Your task to perform on an android device: Open the calendar and show me this week's events? Image 0: 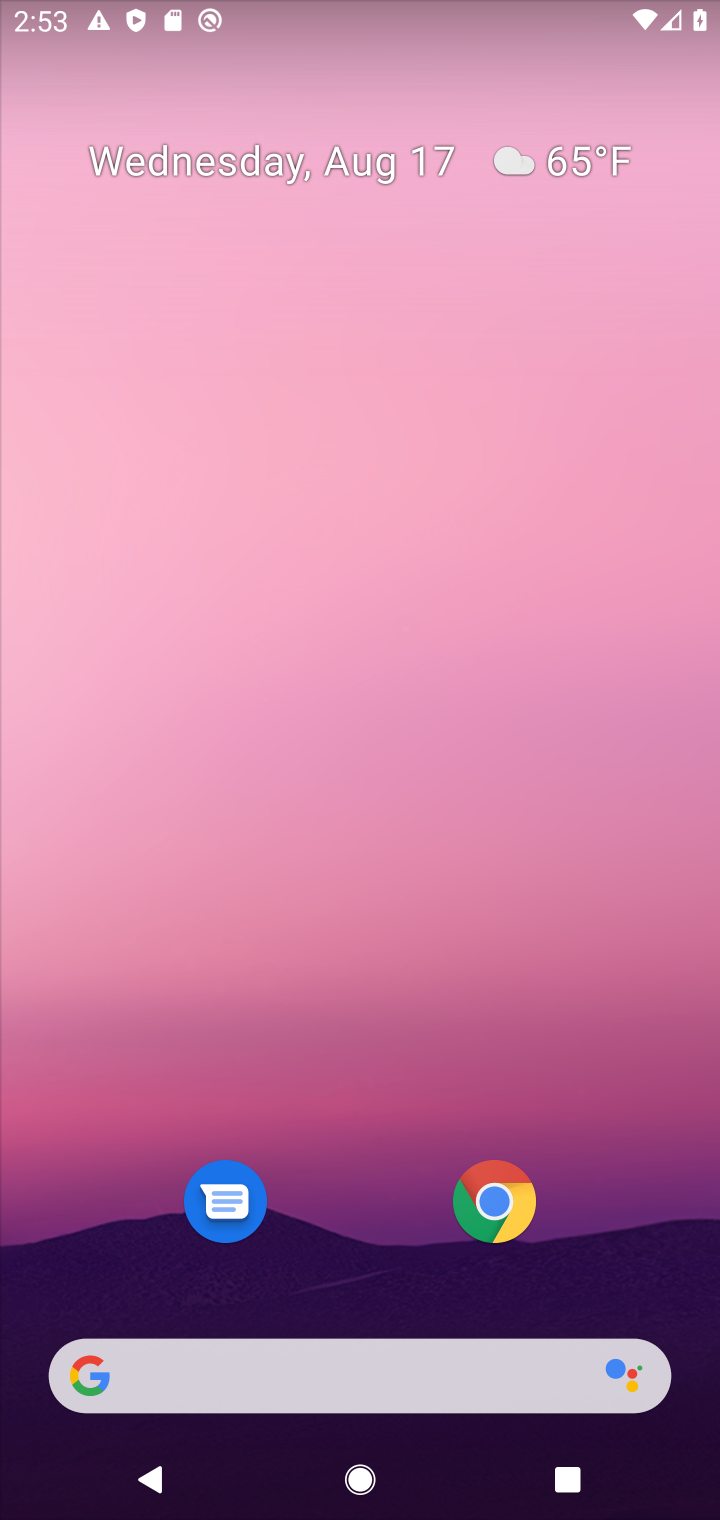
Step 0: drag from (352, 1153) to (517, 36)
Your task to perform on an android device: Open the calendar and show me this week's events? Image 1: 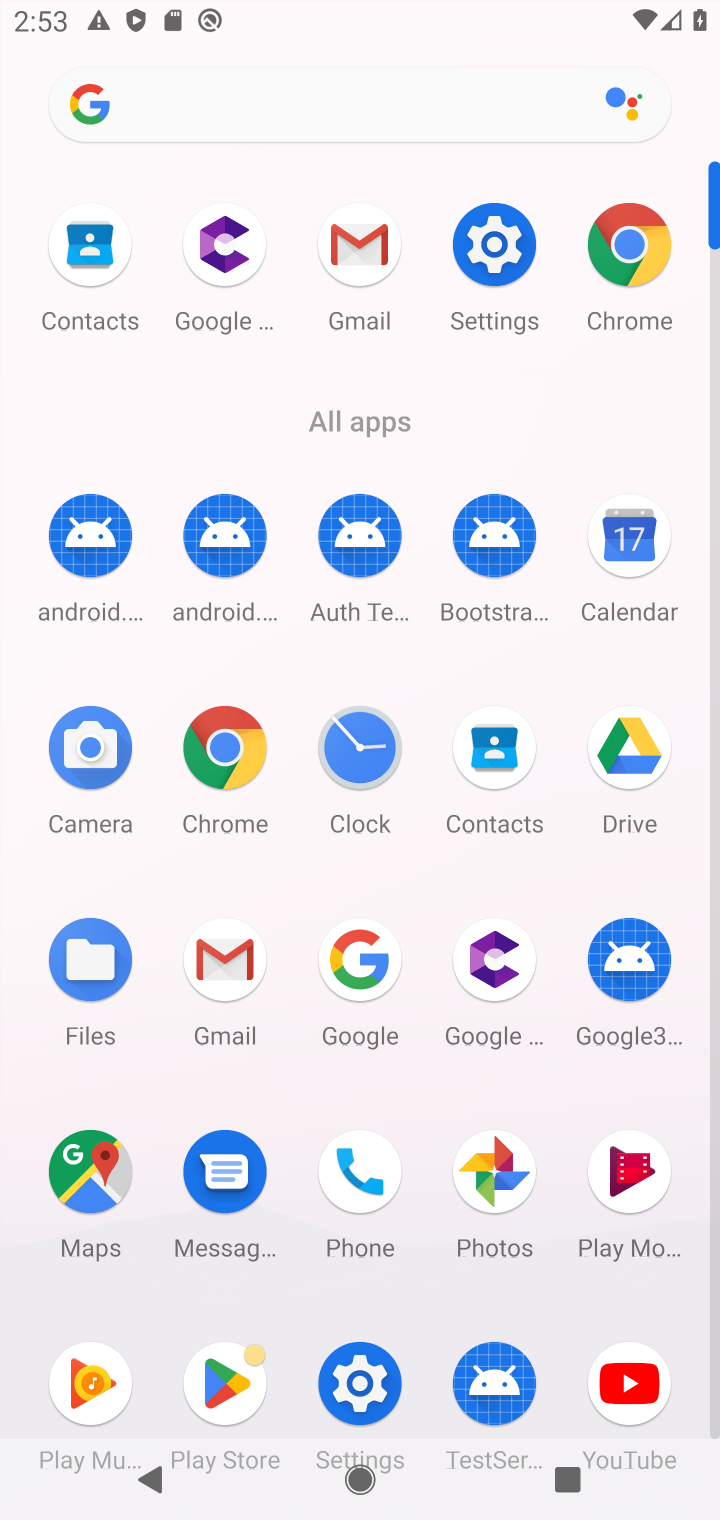
Step 1: click (614, 555)
Your task to perform on an android device: Open the calendar and show me this week's events? Image 2: 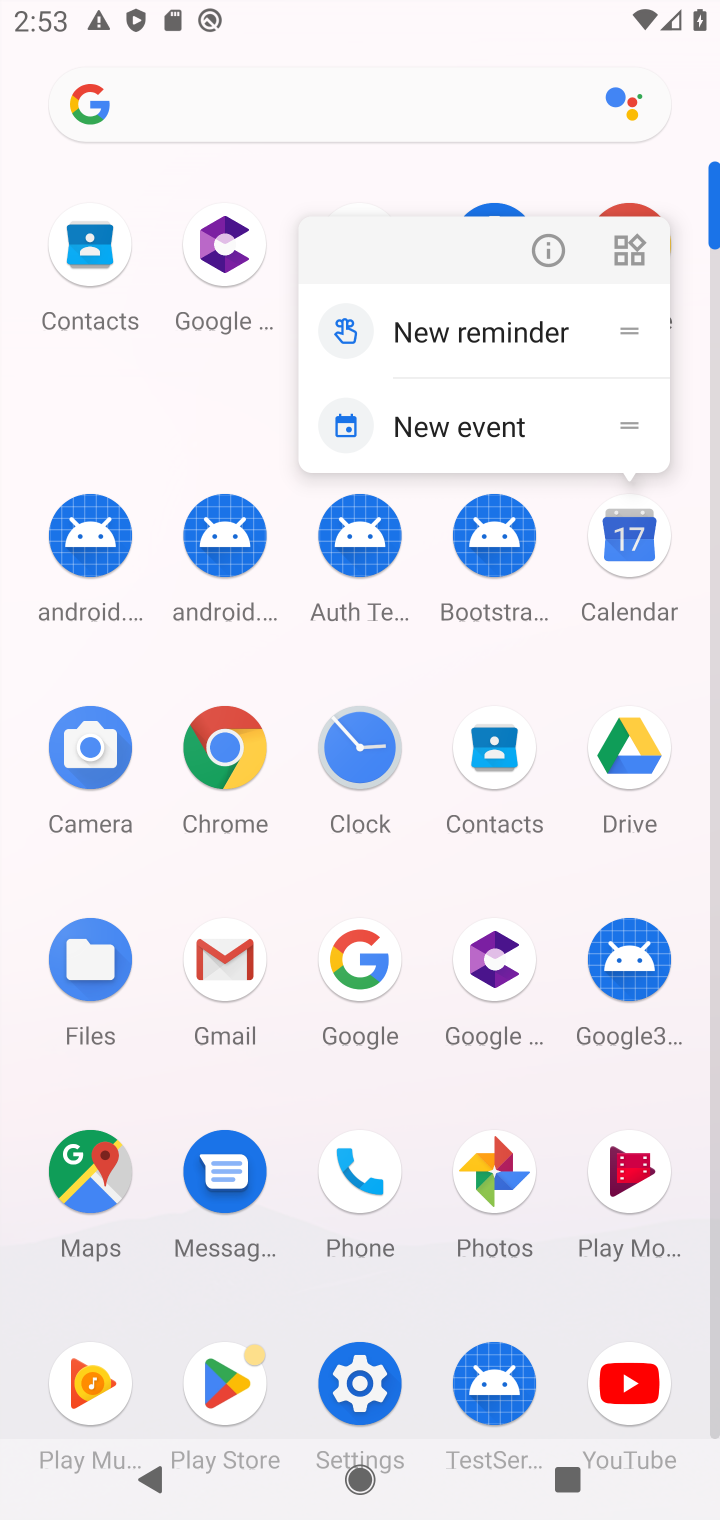
Step 2: click (627, 540)
Your task to perform on an android device: Open the calendar and show me this week's events? Image 3: 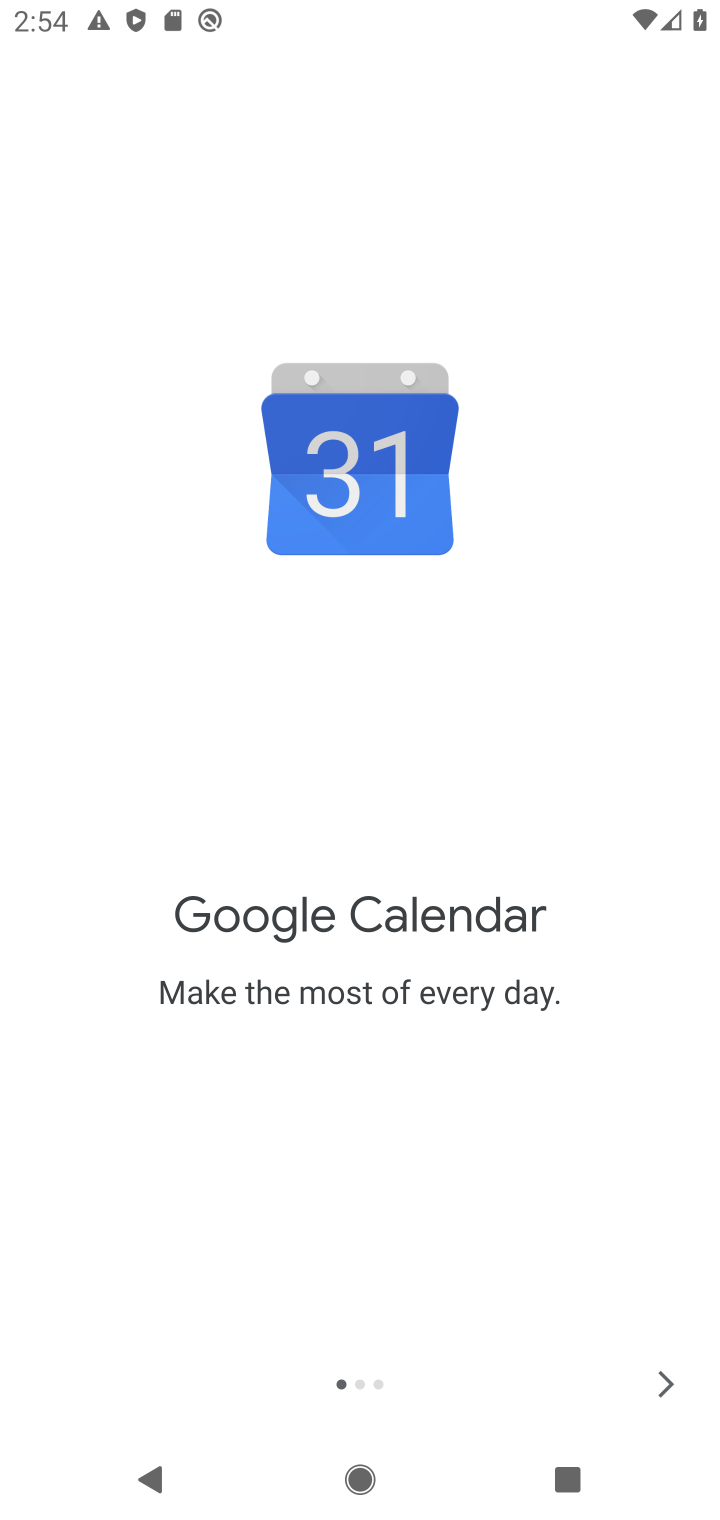
Step 3: click (671, 1396)
Your task to perform on an android device: Open the calendar and show me this week's events? Image 4: 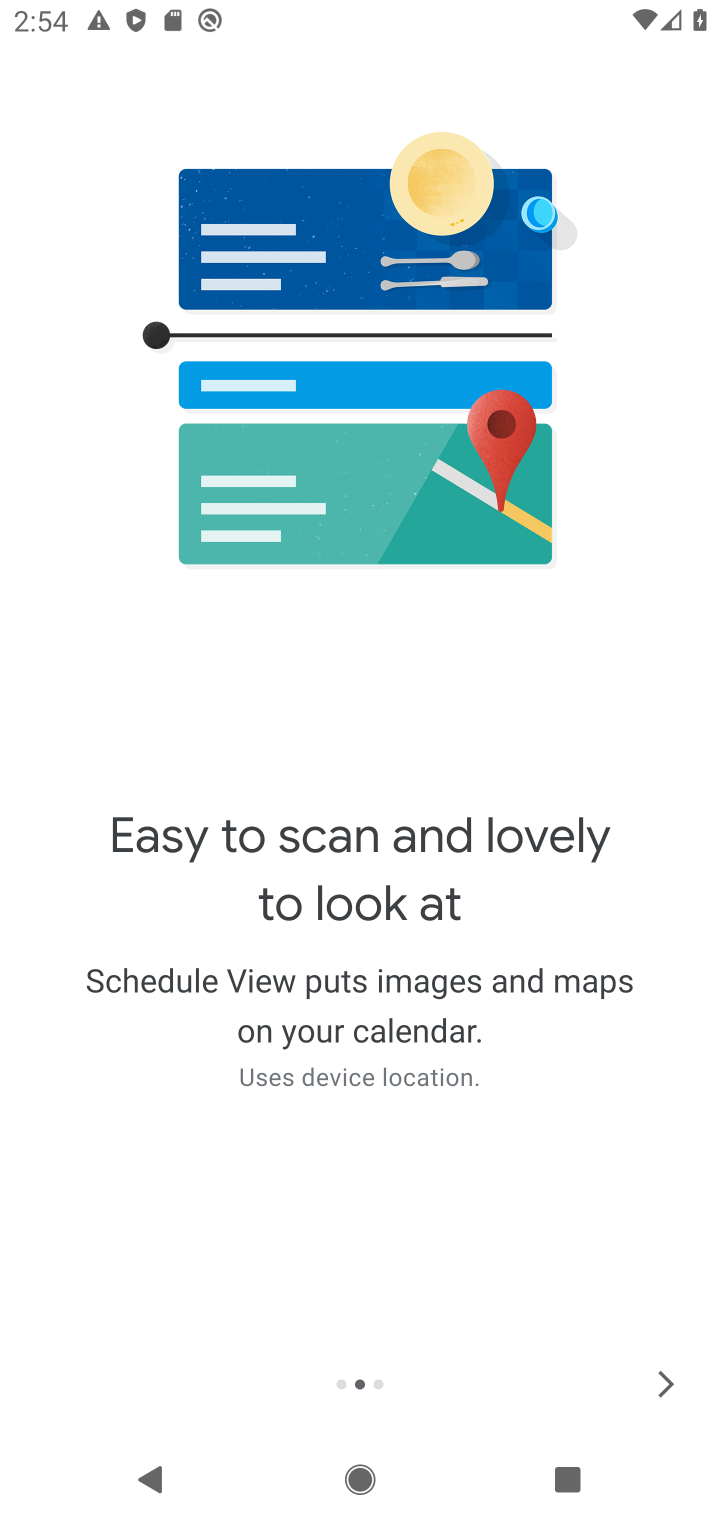
Step 4: click (669, 1386)
Your task to perform on an android device: Open the calendar and show me this week's events? Image 5: 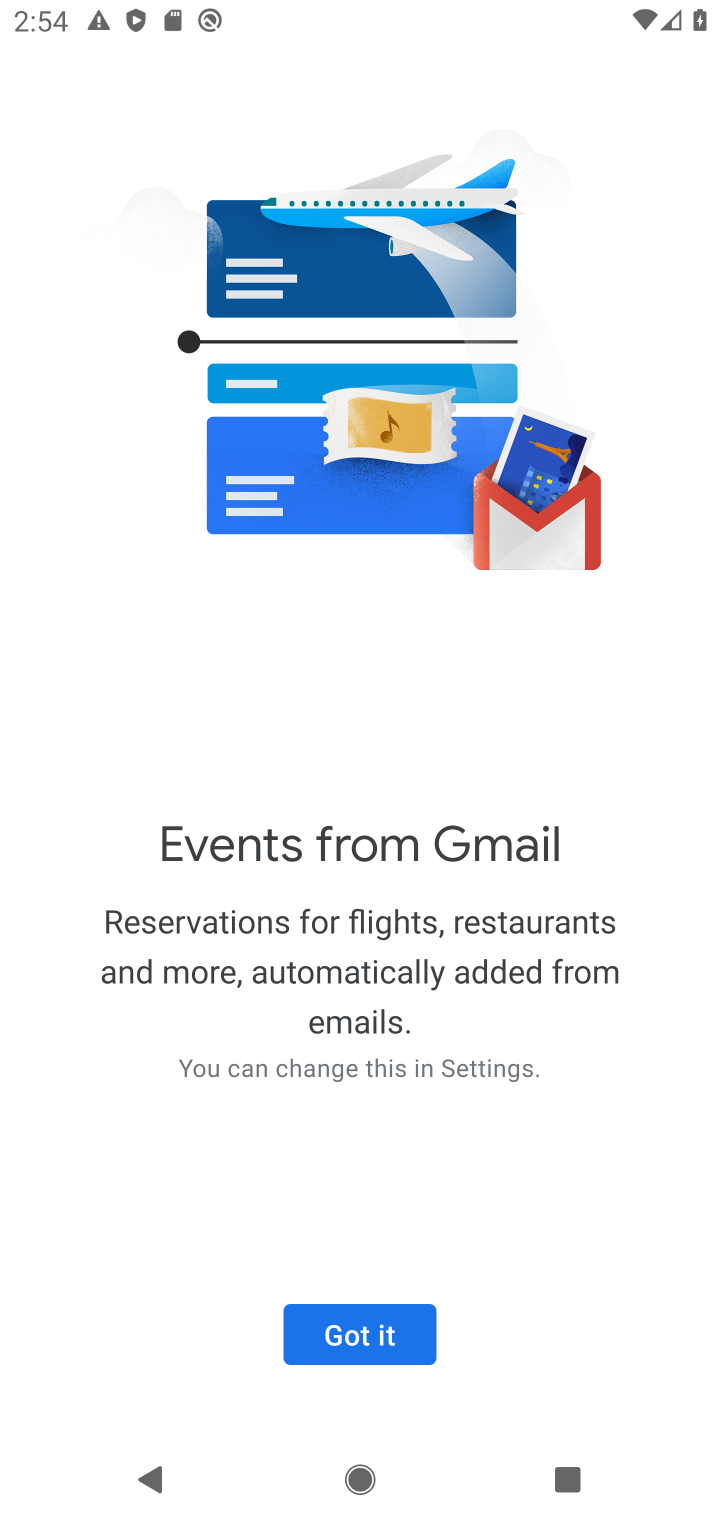
Step 5: click (362, 1319)
Your task to perform on an android device: Open the calendar and show me this week's events? Image 6: 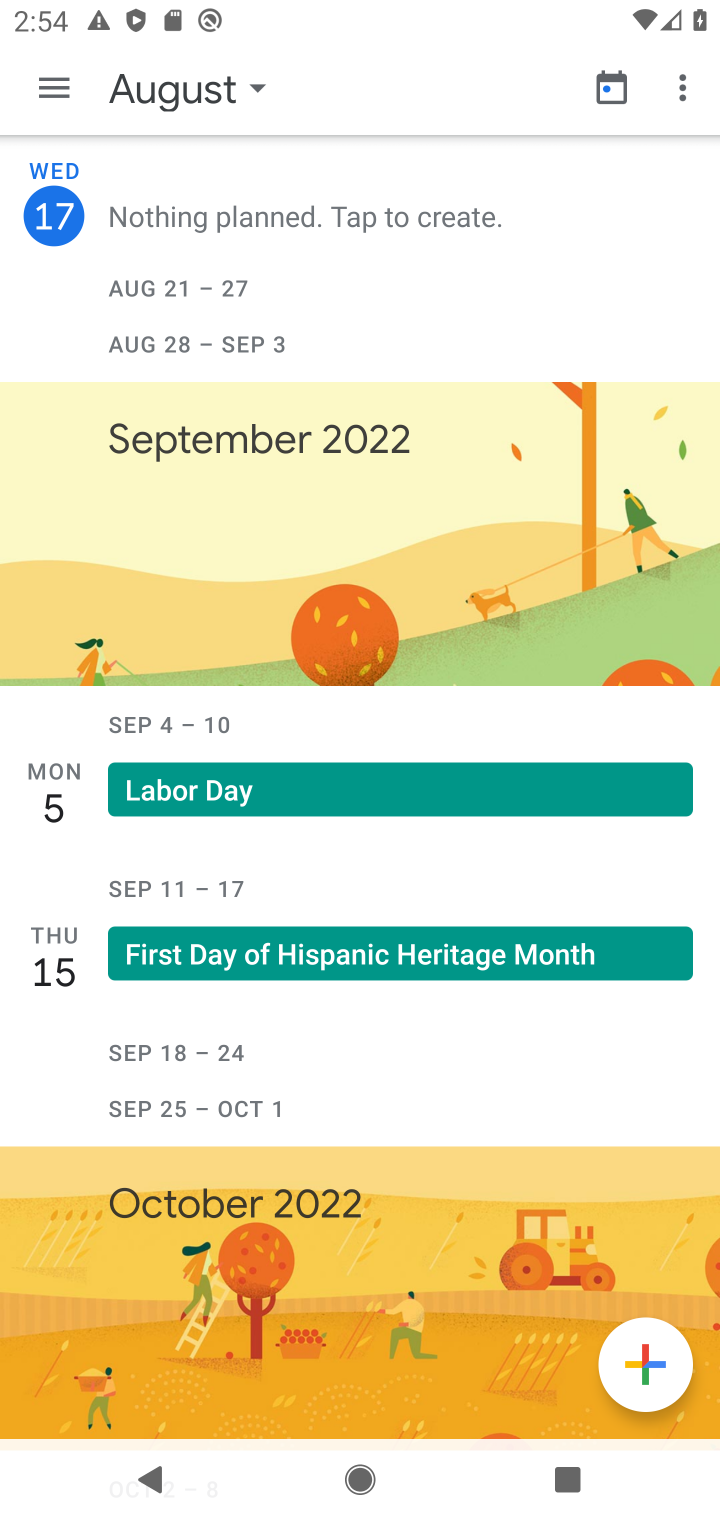
Step 6: click (244, 96)
Your task to perform on an android device: Open the calendar and show me this week's events? Image 7: 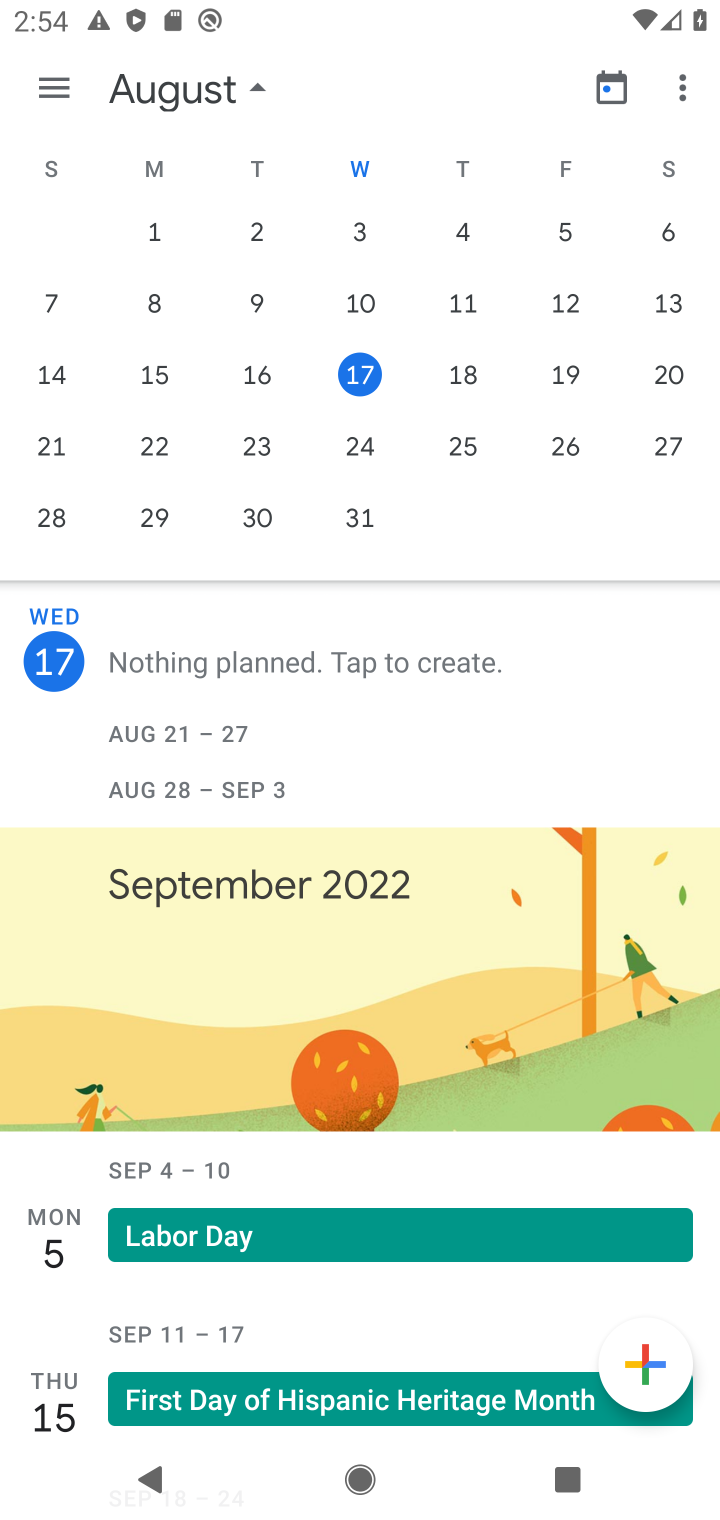
Step 7: task complete